Your task to perform on an android device: What is the news today? Image 0: 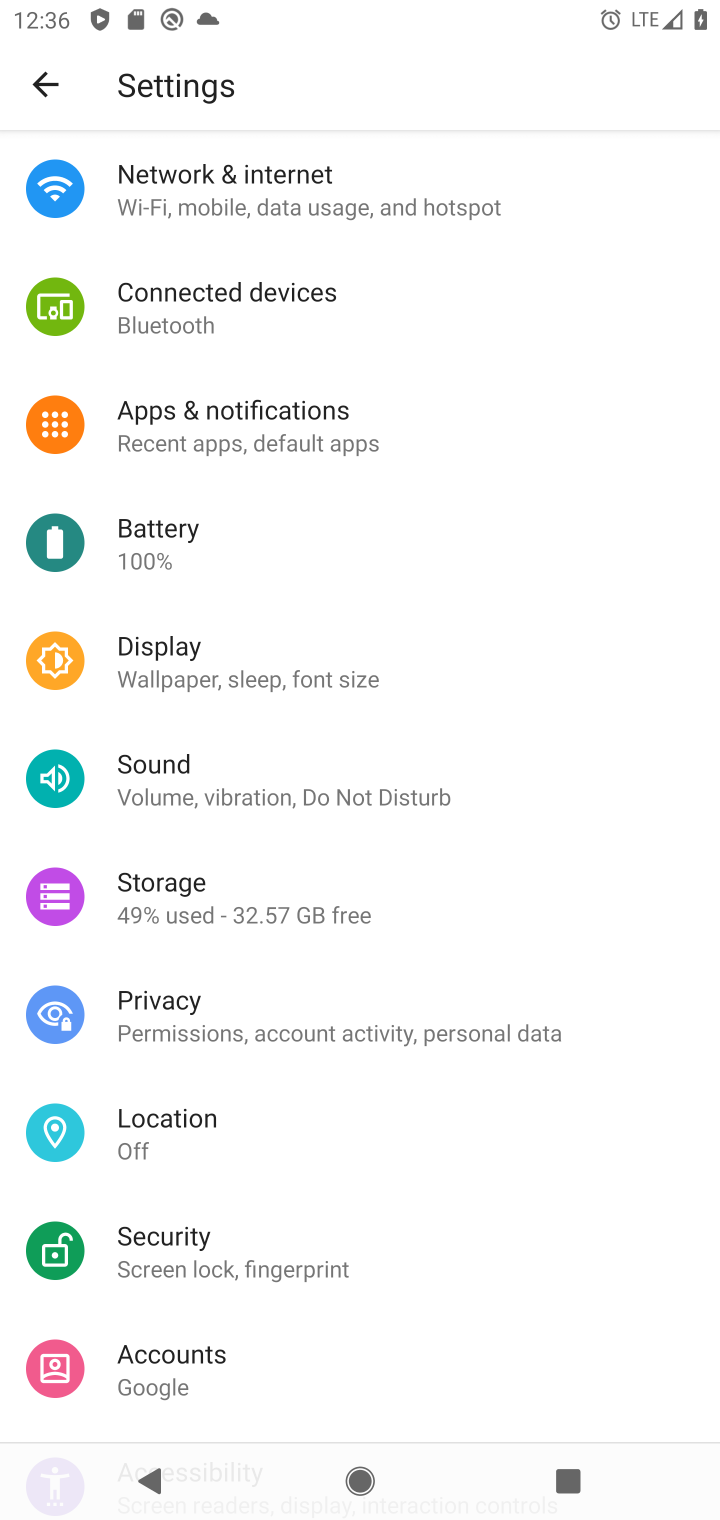
Step 0: press home button
Your task to perform on an android device: What is the news today? Image 1: 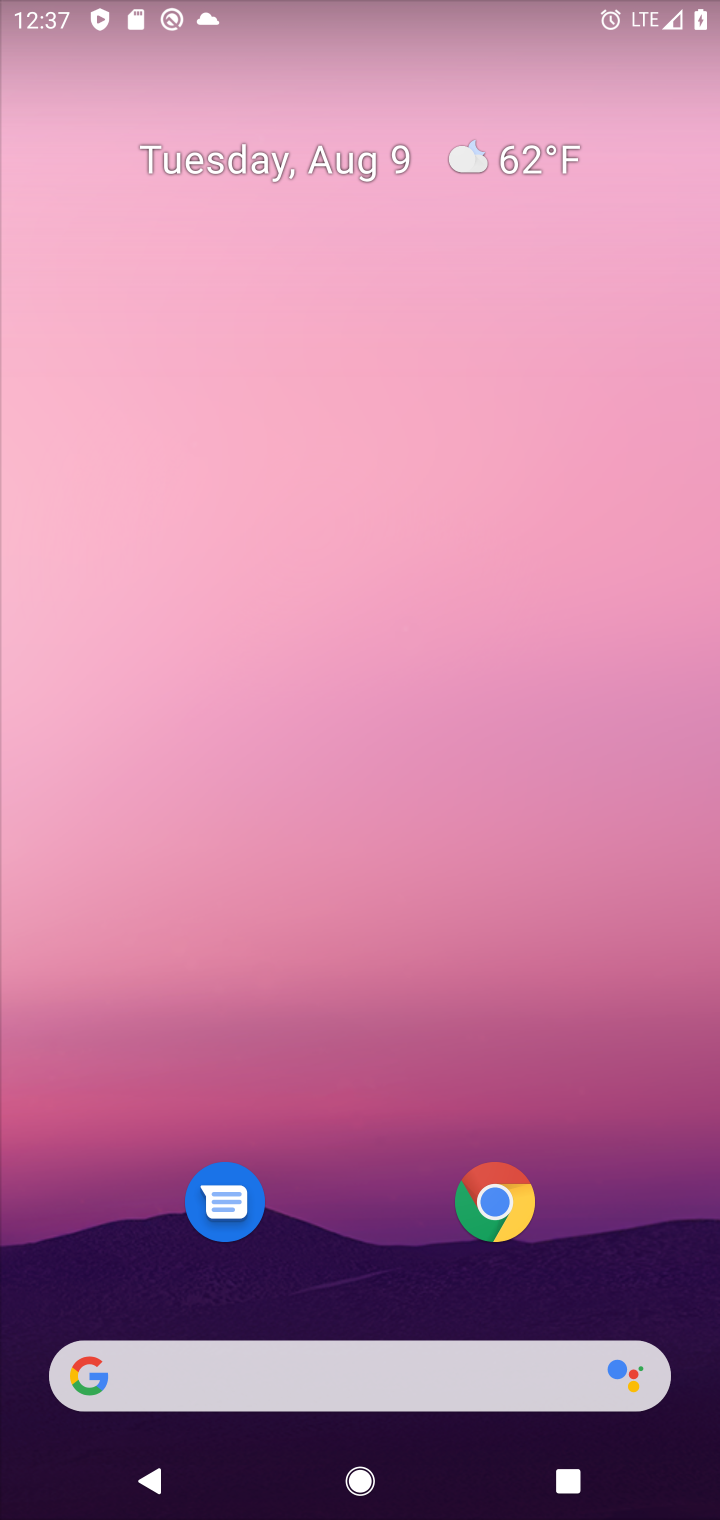
Step 1: click (319, 1380)
Your task to perform on an android device: What is the news today? Image 2: 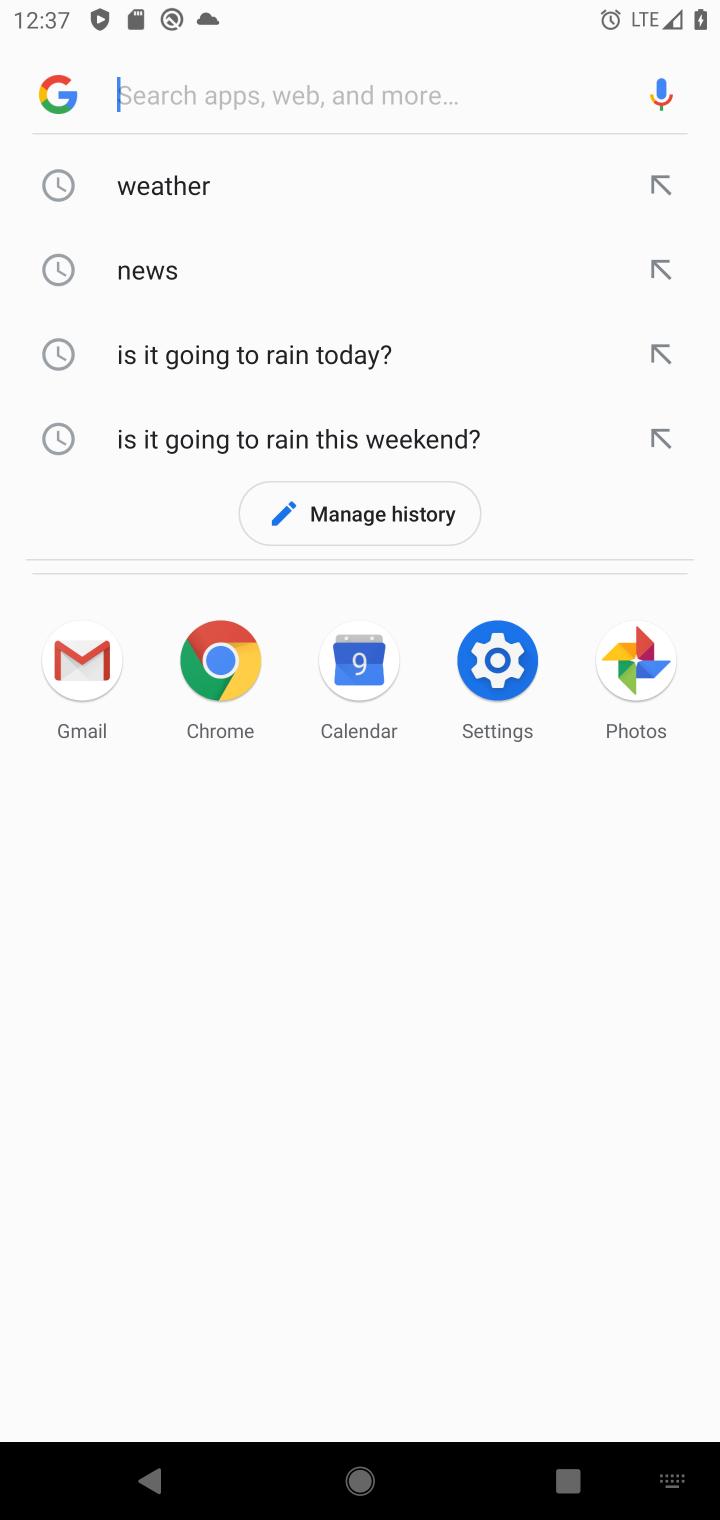
Step 2: type "news today"
Your task to perform on an android device: What is the news today? Image 3: 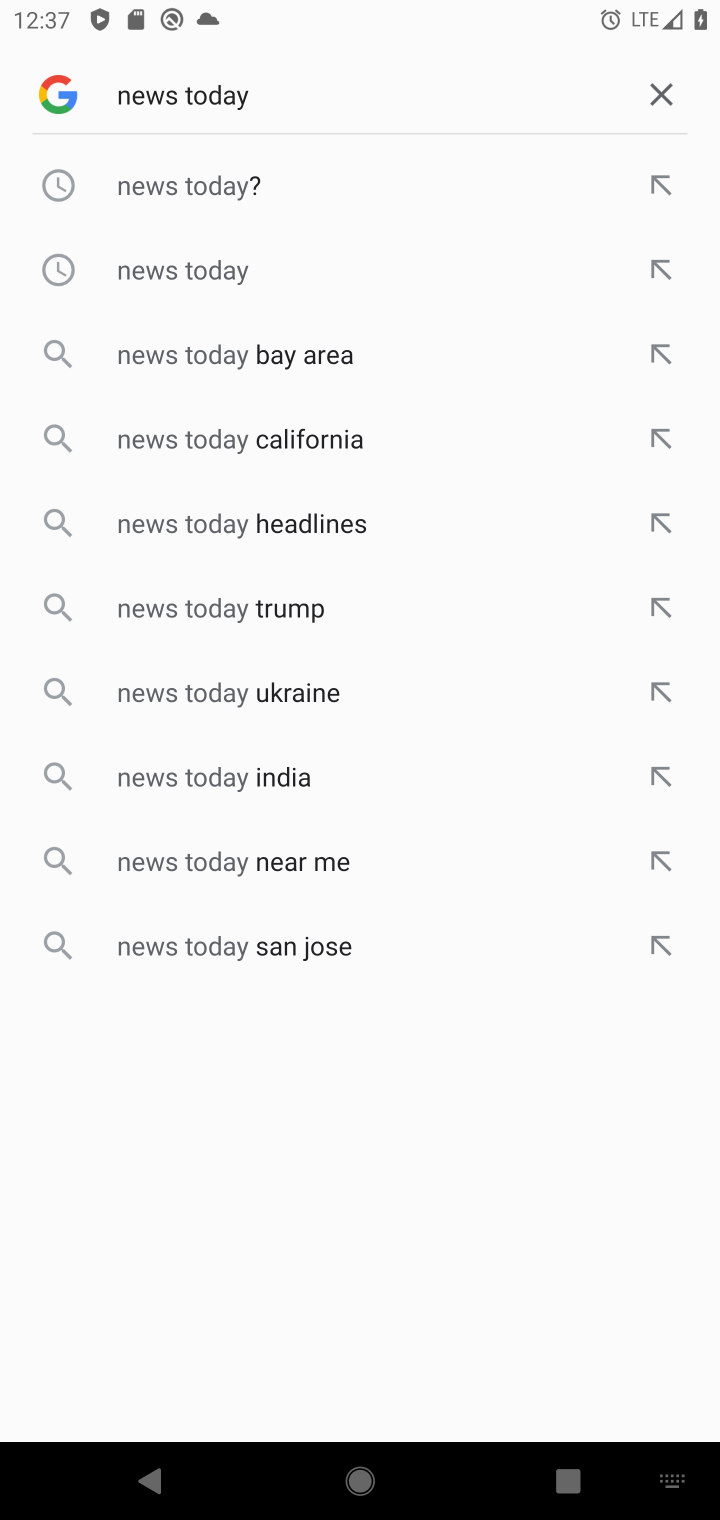
Step 3: click (213, 184)
Your task to perform on an android device: What is the news today? Image 4: 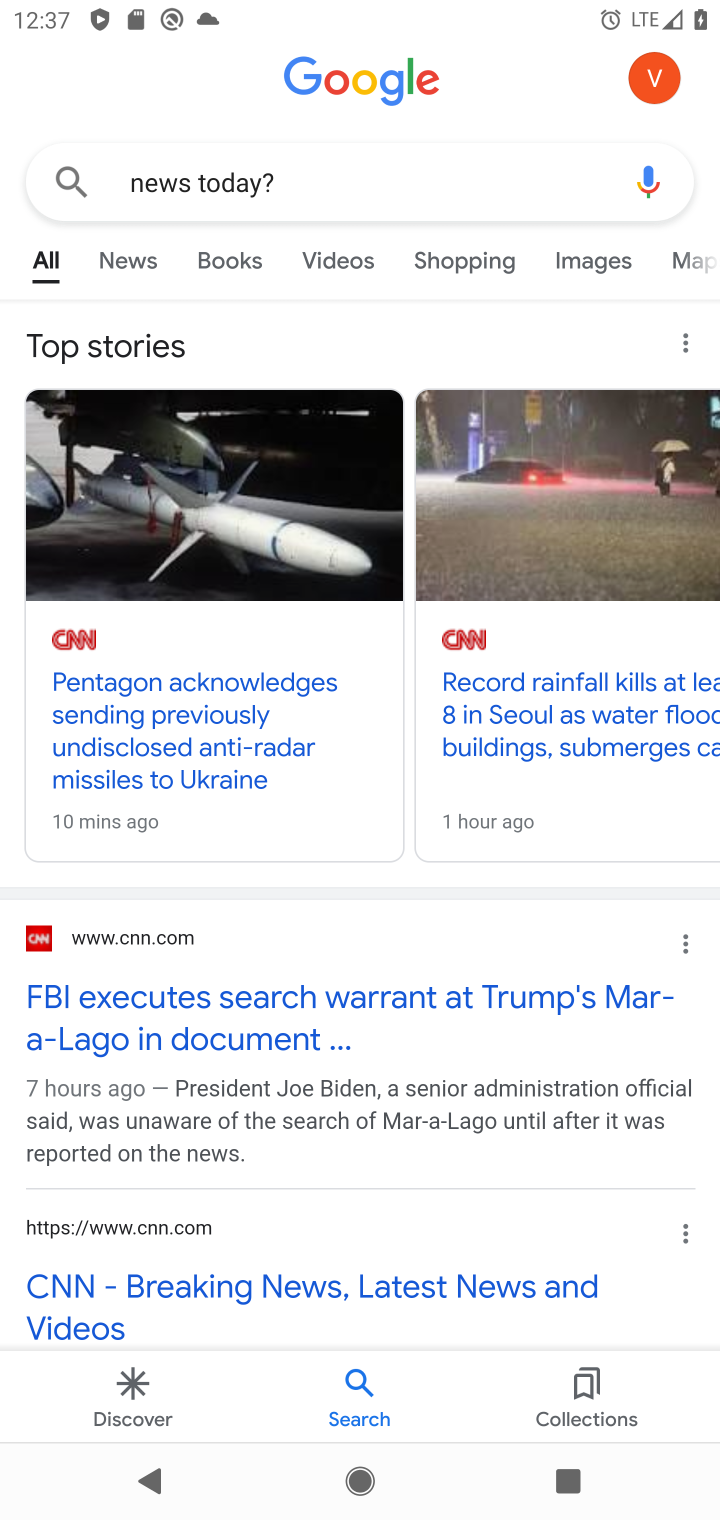
Step 4: task complete